Your task to perform on an android device: make emails show in primary in the gmail app Image 0: 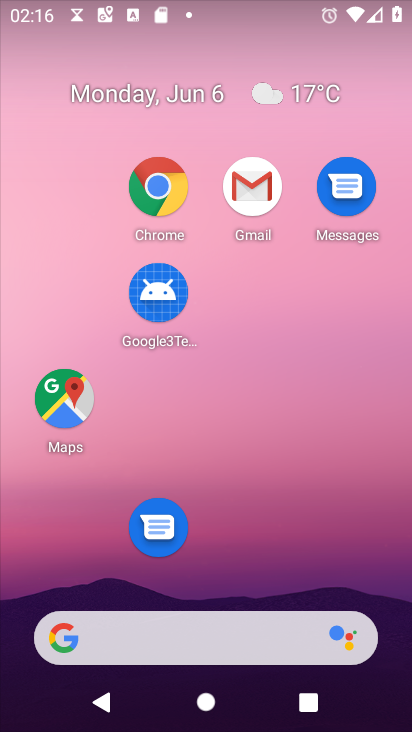
Step 0: click (244, 193)
Your task to perform on an android device: make emails show in primary in the gmail app Image 1: 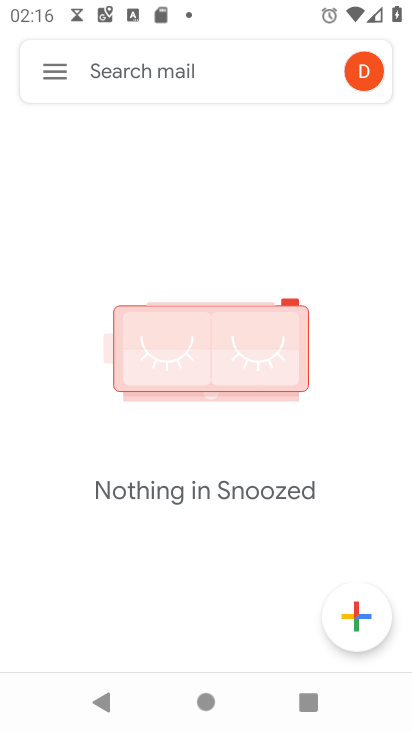
Step 1: click (60, 68)
Your task to perform on an android device: make emails show in primary in the gmail app Image 2: 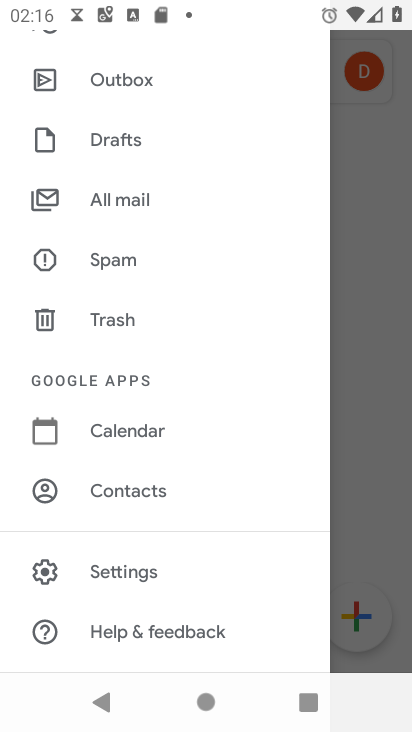
Step 2: click (136, 567)
Your task to perform on an android device: make emails show in primary in the gmail app Image 3: 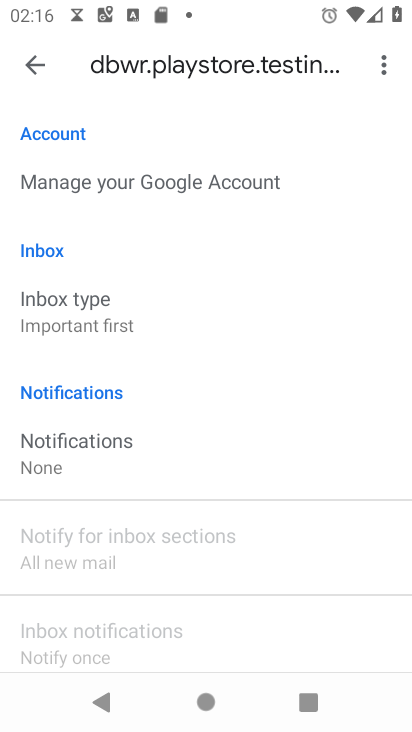
Step 3: click (67, 316)
Your task to perform on an android device: make emails show in primary in the gmail app Image 4: 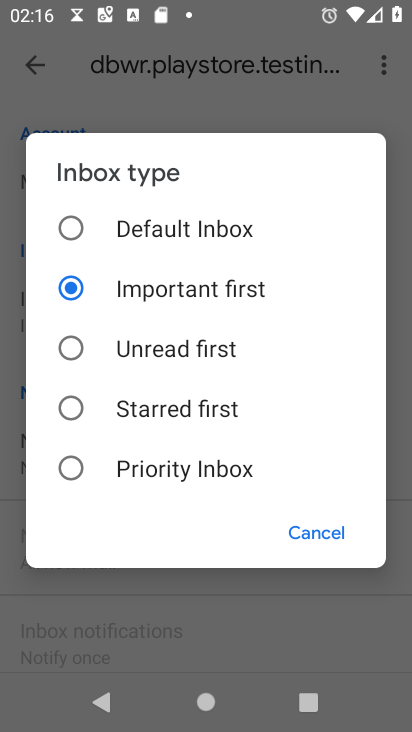
Step 4: click (66, 219)
Your task to perform on an android device: make emails show in primary in the gmail app Image 5: 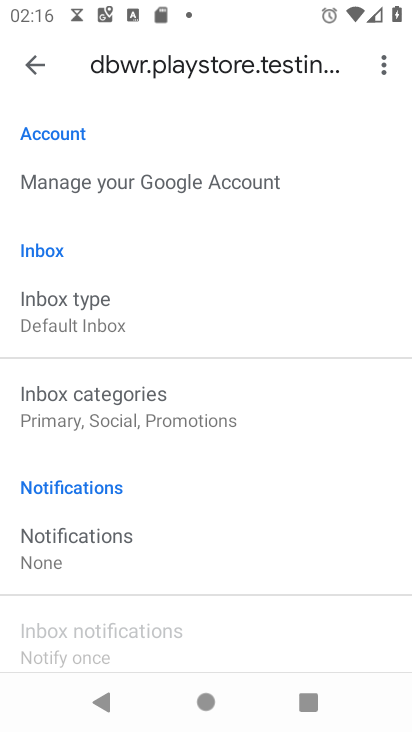
Step 5: click (126, 423)
Your task to perform on an android device: make emails show in primary in the gmail app Image 6: 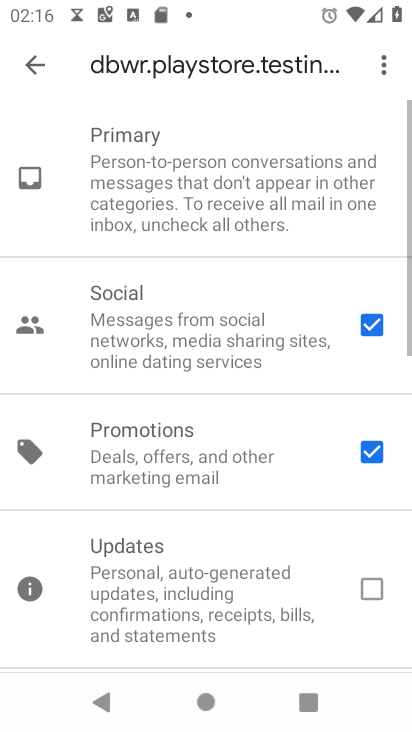
Step 6: click (378, 314)
Your task to perform on an android device: make emails show in primary in the gmail app Image 7: 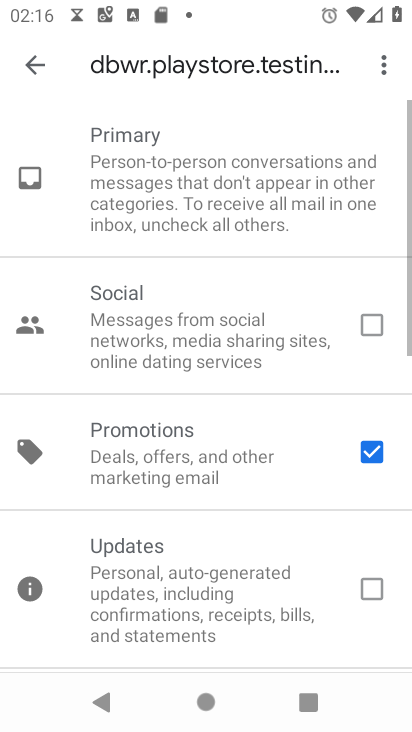
Step 7: click (378, 451)
Your task to perform on an android device: make emails show in primary in the gmail app Image 8: 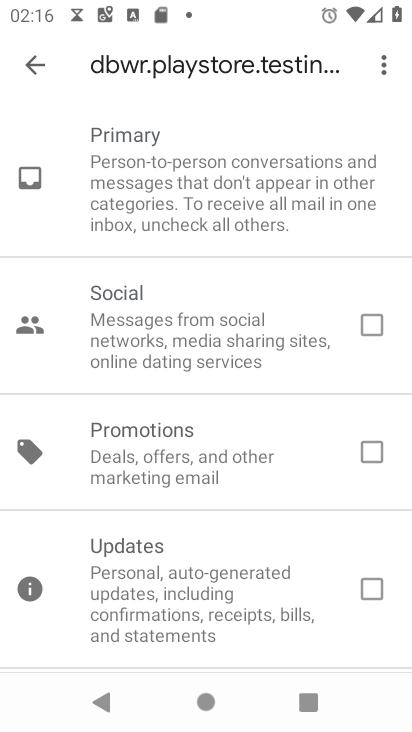
Step 8: task complete